Your task to perform on an android device: Go to eBay Image 0: 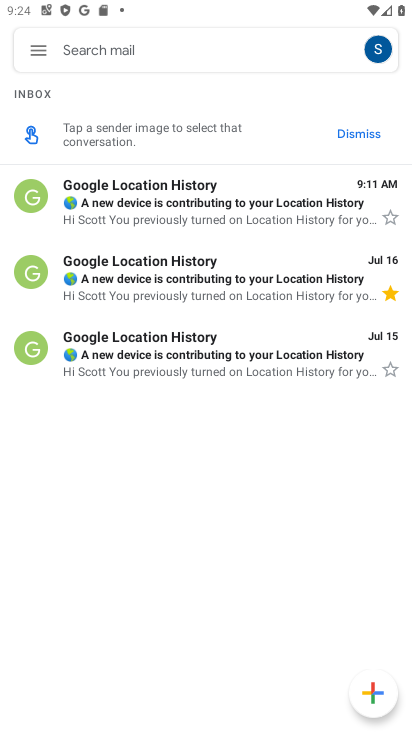
Step 0: press home button
Your task to perform on an android device: Go to eBay Image 1: 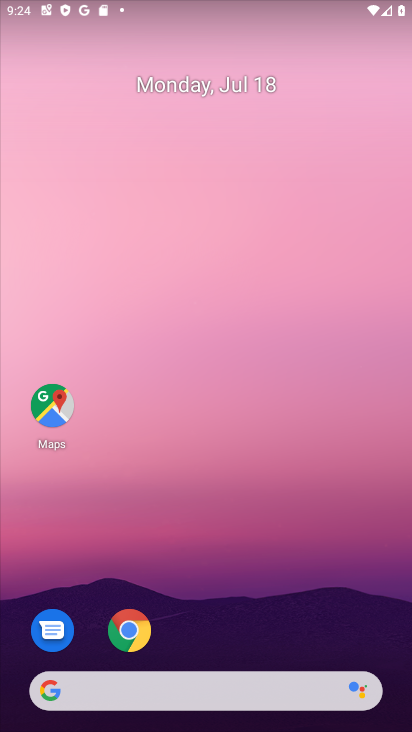
Step 1: drag from (402, 668) to (242, 47)
Your task to perform on an android device: Go to eBay Image 2: 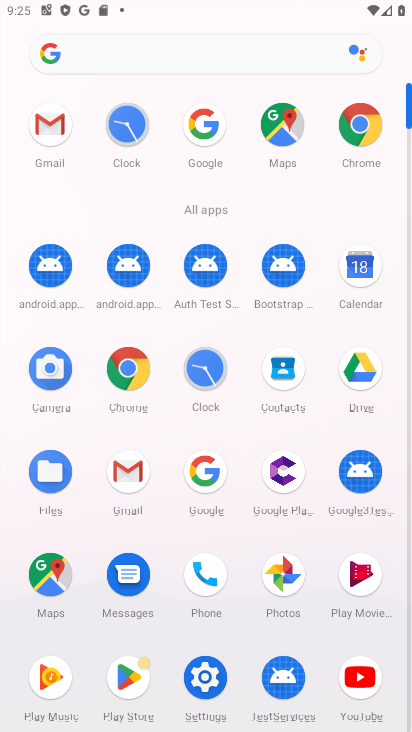
Step 2: click (199, 476)
Your task to perform on an android device: Go to eBay Image 3: 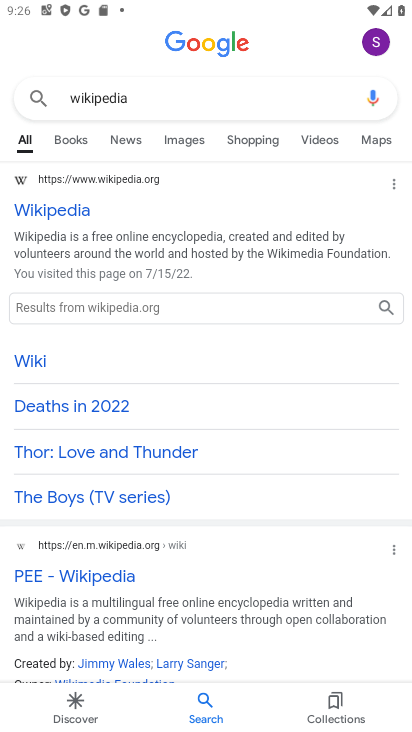
Step 3: press back button
Your task to perform on an android device: Go to eBay Image 4: 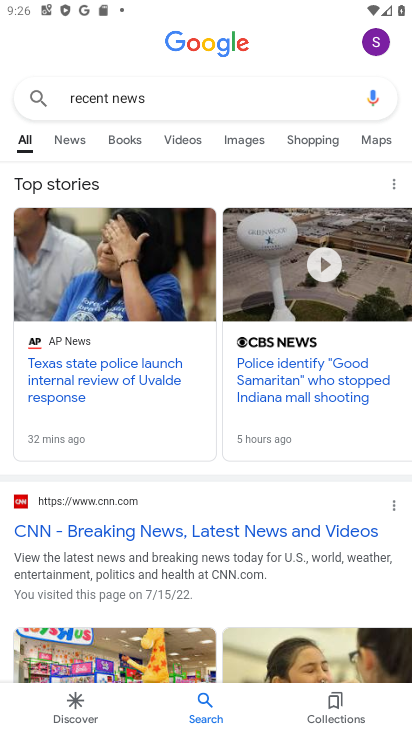
Step 4: press back button
Your task to perform on an android device: Go to eBay Image 5: 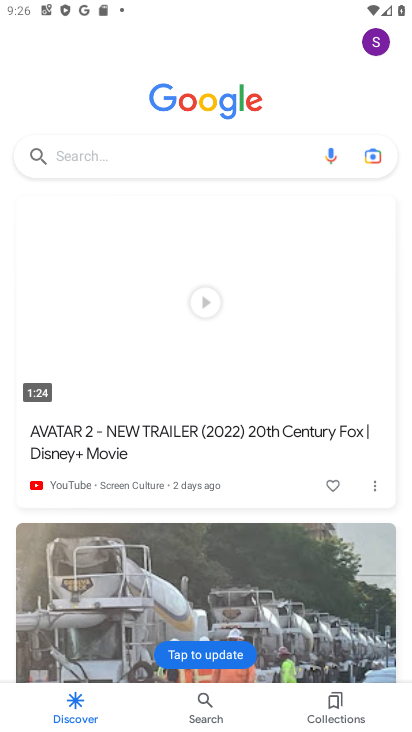
Step 5: click (115, 145)
Your task to perform on an android device: Go to eBay Image 6: 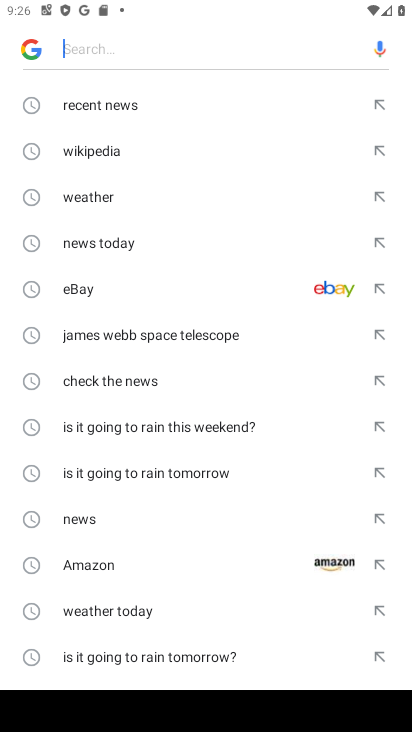
Step 6: click (112, 283)
Your task to perform on an android device: Go to eBay Image 7: 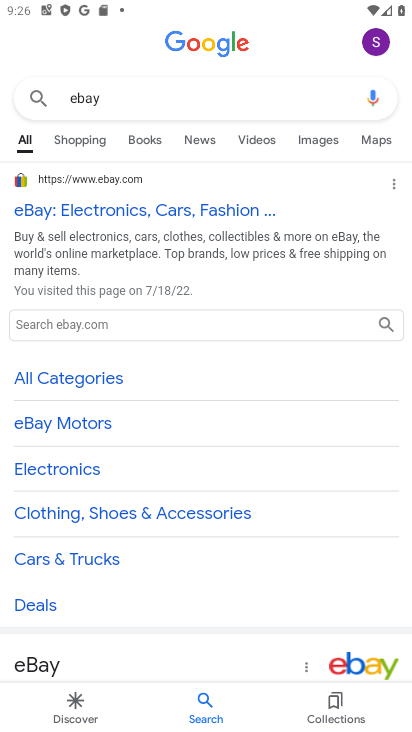
Step 7: task complete